Your task to perform on an android device: Is it going to rain tomorrow? Image 0: 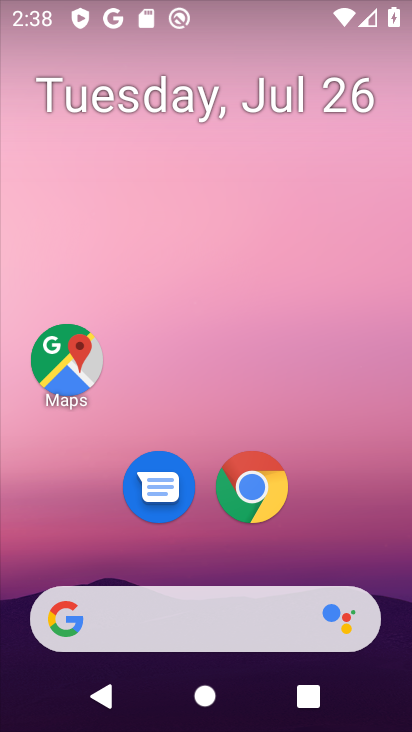
Step 0: click (177, 607)
Your task to perform on an android device: Is it going to rain tomorrow? Image 1: 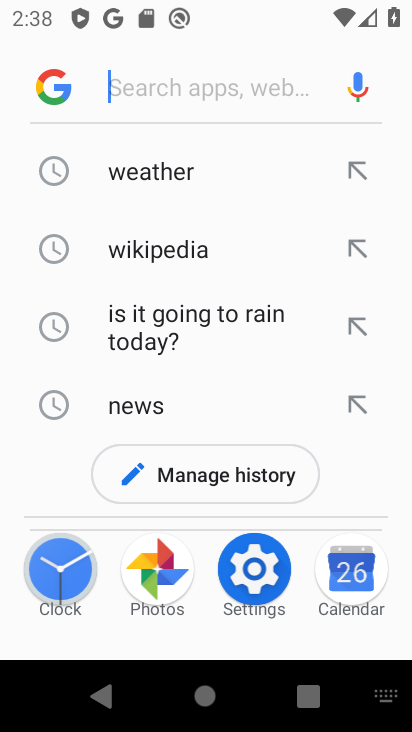
Step 1: click (191, 167)
Your task to perform on an android device: Is it going to rain tomorrow? Image 2: 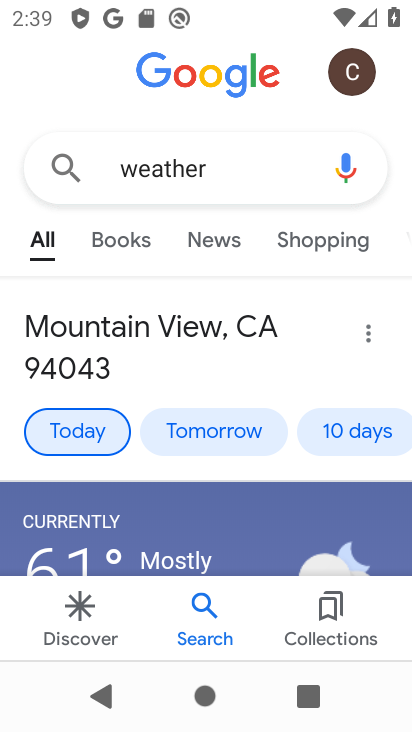
Step 2: click (208, 427)
Your task to perform on an android device: Is it going to rain tomorrow? Image 3: 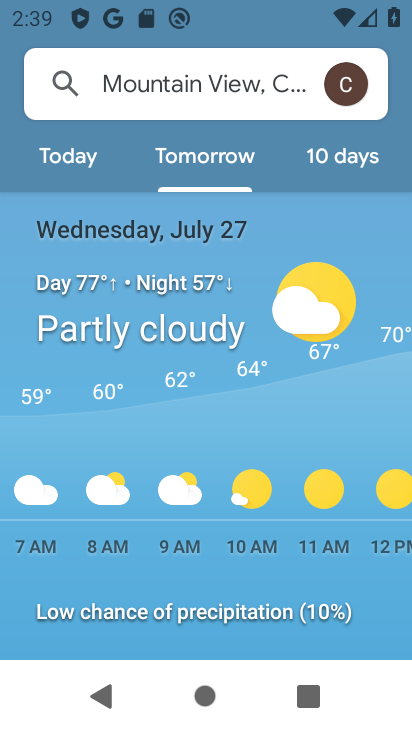
Step 3: task complete